Your task to perform on an android device: stop showing notifications on the lock screen Image 0: 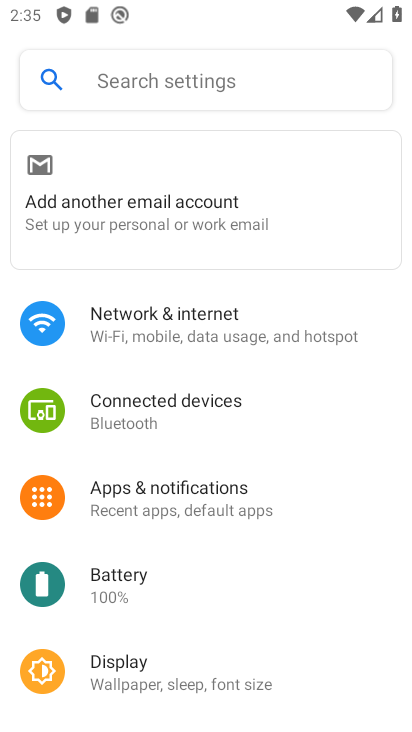
Step 0: press home button
Your task to perform on an android device: stop showing notifications on the lock screen Image 1: 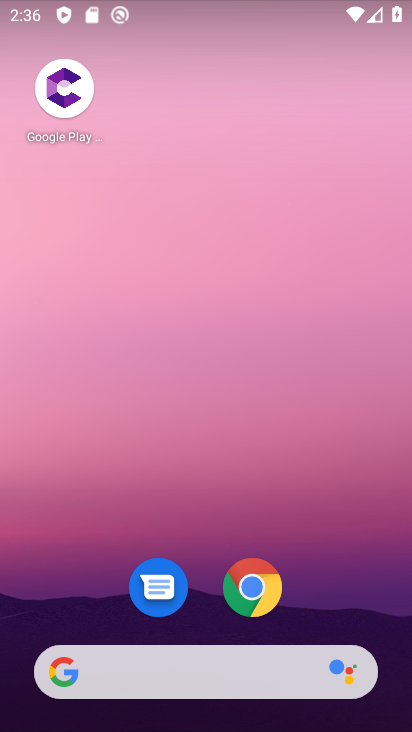
Step 1: drag from (208, 617) to (225, 207)
Your task to perform on an android device: stop showing notifications on the lock screen Image 2: 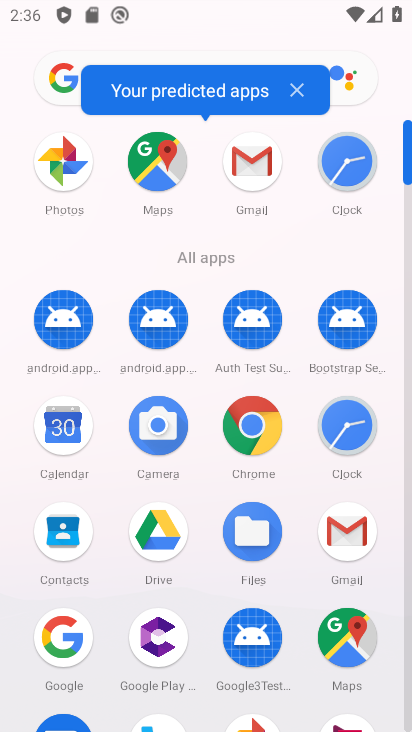
Step 2: drag from (188, 602) to (199, 212)
Your task to perform on an android device: stop showing notifications on the lock screen Image 3: 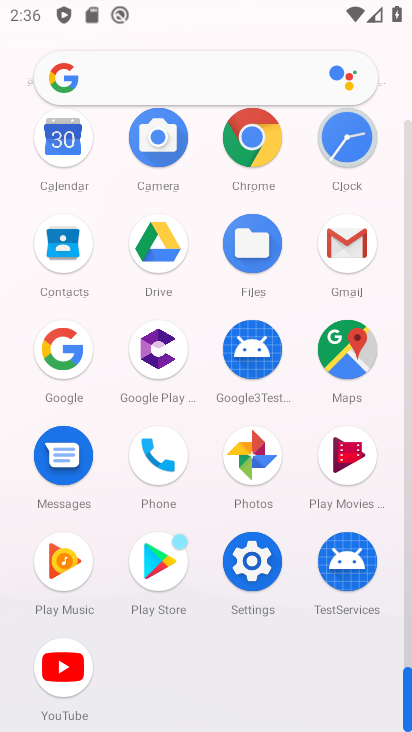
Step 3: click (257, 561)
Your task to perform on an android device: stop showing notifications on the lock screen Image 4: 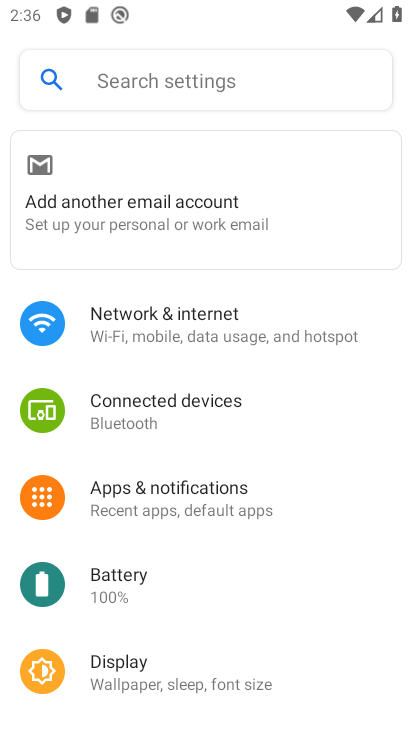
Step 4: click (158, 513)
Your task to perform on an android device: stop showing notifications on the lock screen Image 5: 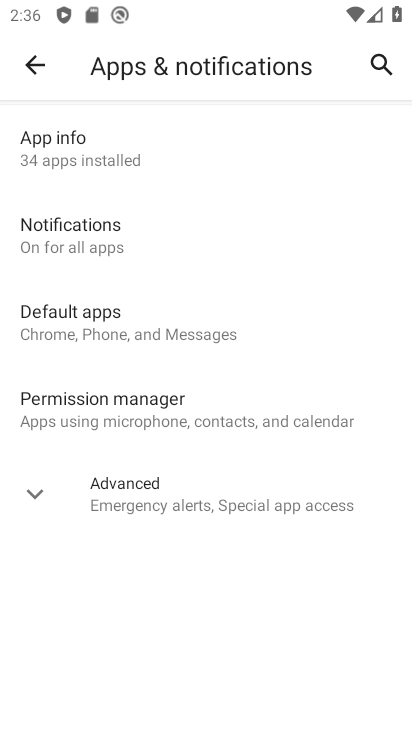
Step 5: click (101, 230)
Your task to perform on an android device: stop showing notifications on the lock screen Image 6: 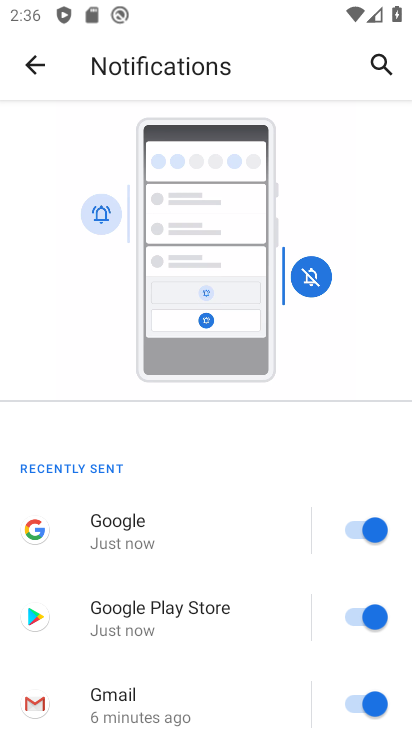
Step 6: drag from (174, 613) to (244, 167)
Your task to perform on an android device: stop showing notifications on the lock screen Image 7: 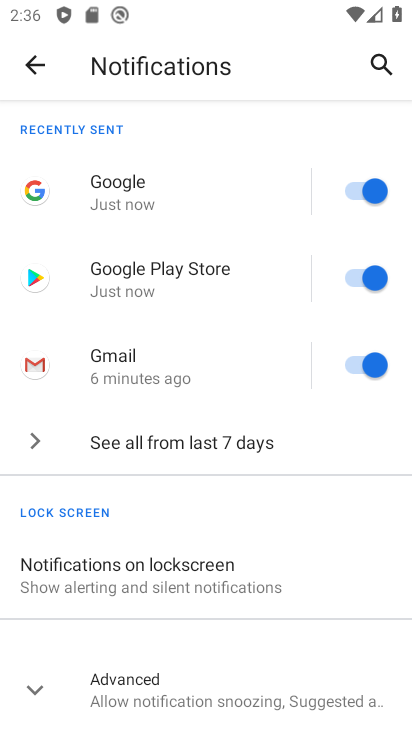
Step 7: click (145, 581)
Your task to perform on an android device: stop showing notifications on the lock screen Image 8: 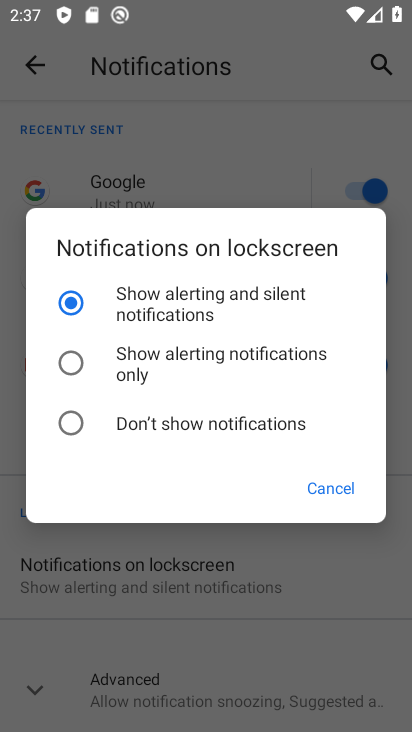
Step 8: click (134, 415)
Your task to perform on an android device: stop showing notifications on the lock screen Image 9: 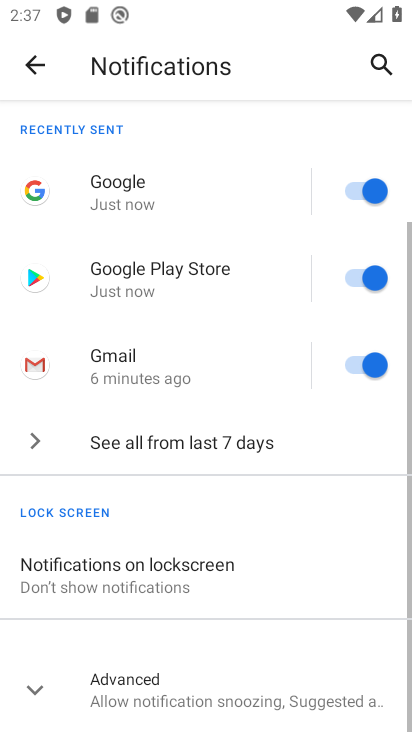
Step 9: task complete